Your task to perform on an android device: toggle translation in the chrome app Image 0: 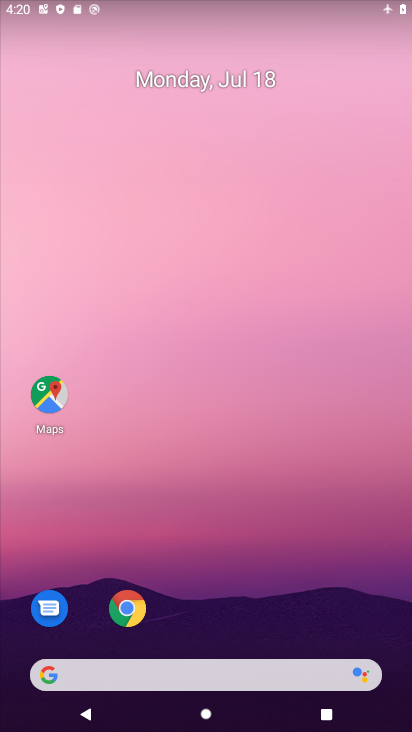
Step 0: drag from (307, 581) to (255, 72)
Your task to perform on an android device: toggle translation in the chrome app Image 1: 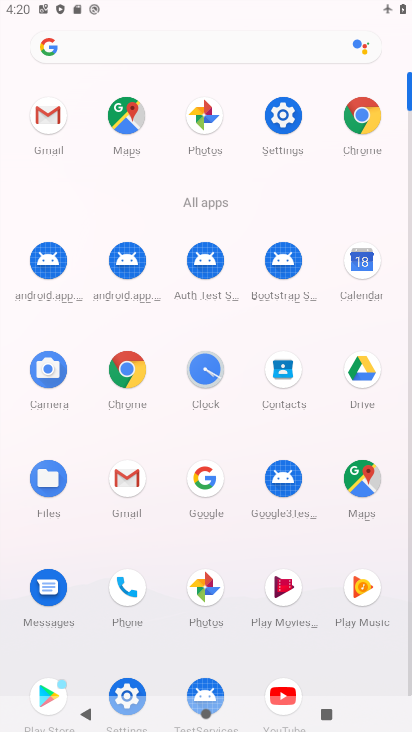
Step 1: click (361, 114)
Your task to perform on an android device: toggle translation in the chrome app Image 2: 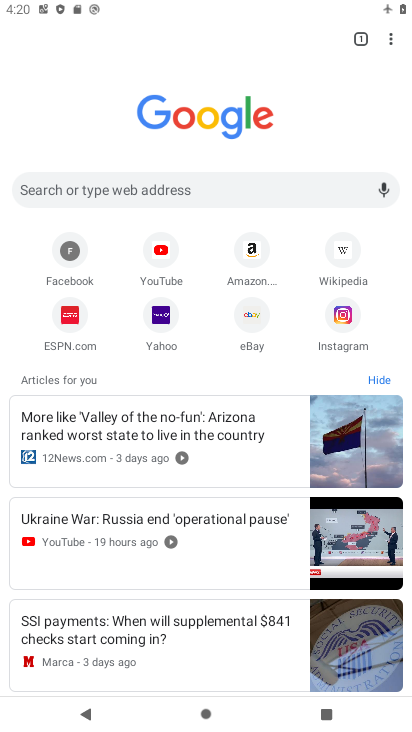
Step 2: drag from (399, 40) to (284, 318)
Your task to perform on an android device: toggle translation in the chrome app Image 3: 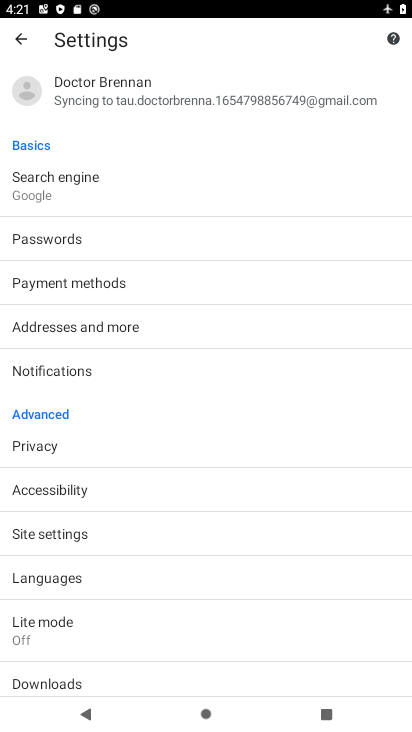
Step 3: click (60, 581)
Your task to perform on an android device: toggle translation in the chrome app Image 4: 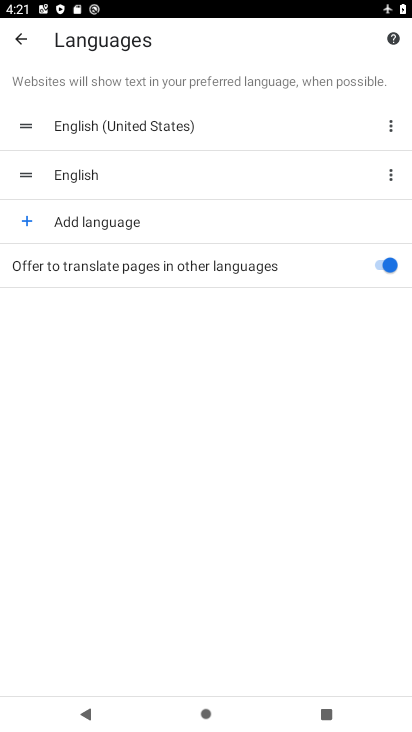
Step 4: click (390, 268)
Your task to perform on an android device: toggle translation in the chrome app Image 5: 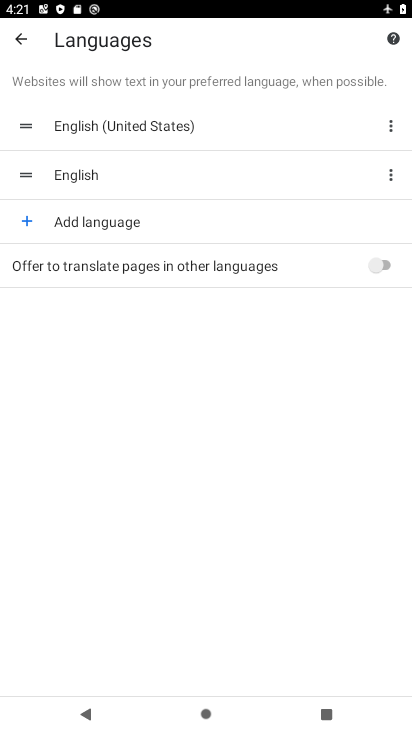
Step 5: task complete